Your task to perform on an android device: allow cookies in the chrome app Image 0: 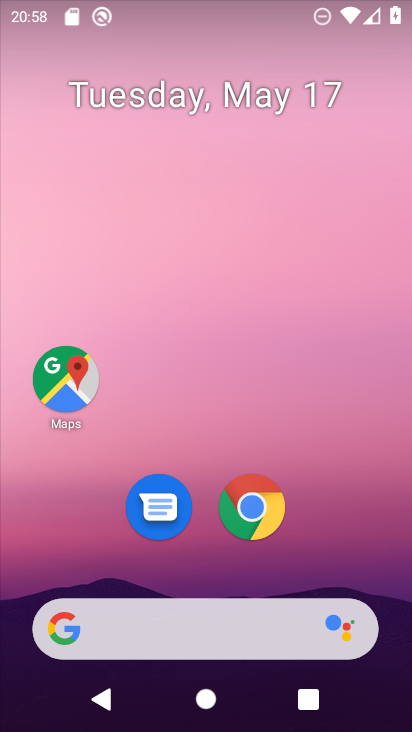
Step 0: click (254, 516)
Your task to perform on an android device: allow cookies in the chrome app Image 1: 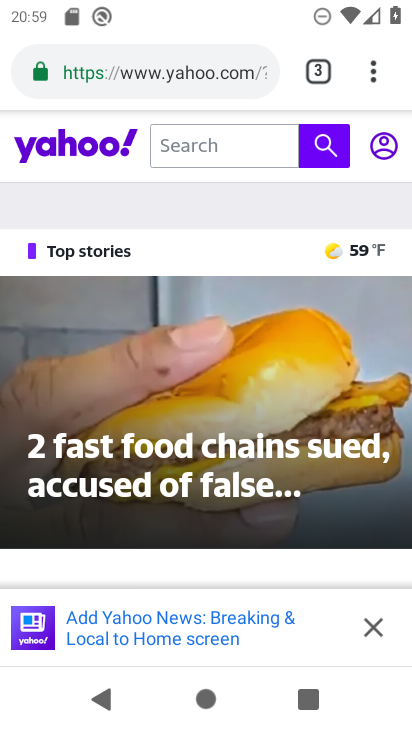
Step 1: drag from (372, 72) to (157, 513)
Your task to perform on an android device: allow cookies in the chrome app Image 2: 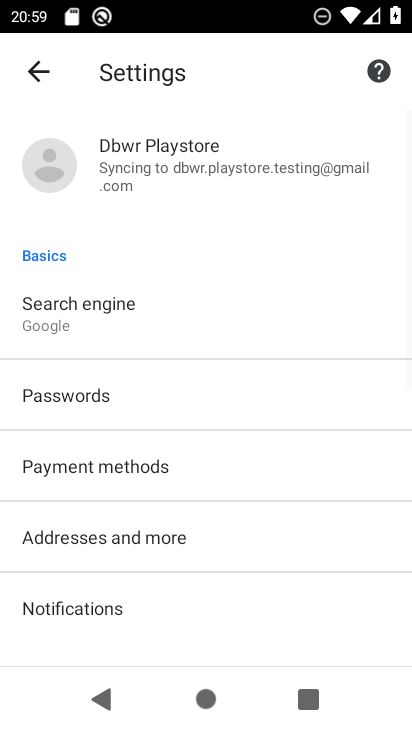
Step 2: drag from (206, 539) to (194, 71)
Your task to perform on an android device: allow cookies in the chrome app Image 3: 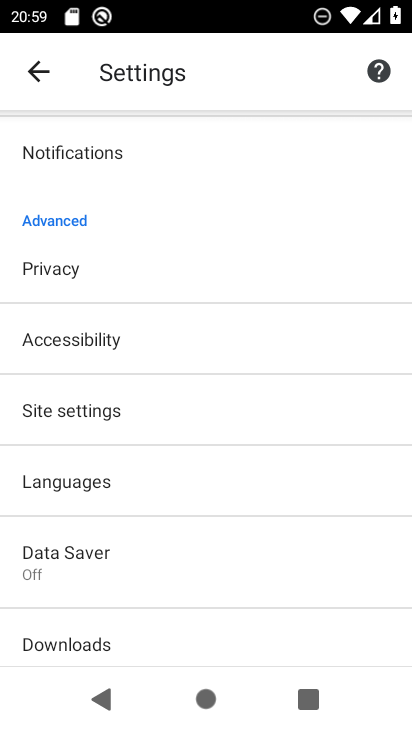
Step 3: click (93, 413)
Your task to perform on an android device: allow cookies in the chrome app Image 4: 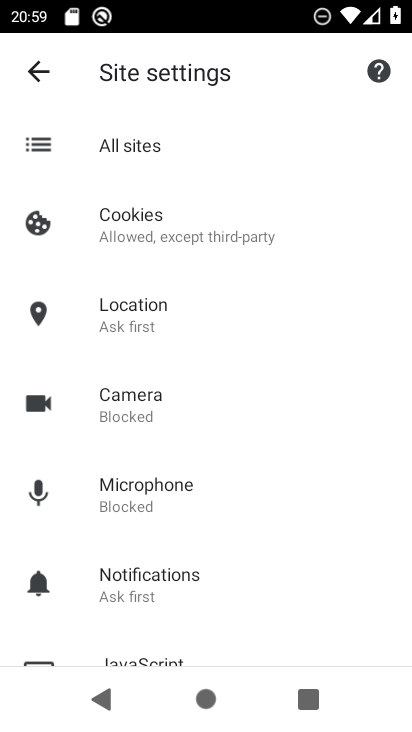
Step 4: click (124, 240)
Your task to perform on an android device: allow cookies in the chrome app Image 5: 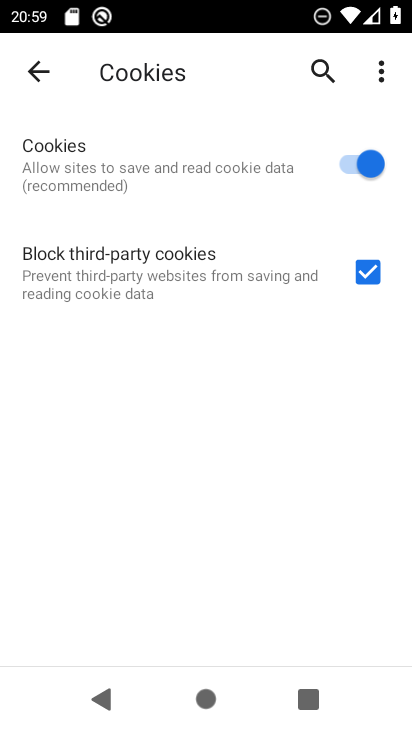
Step 5: task complete